Your task to perform on an android device: What's on my calendar tomorrow? Image 0: 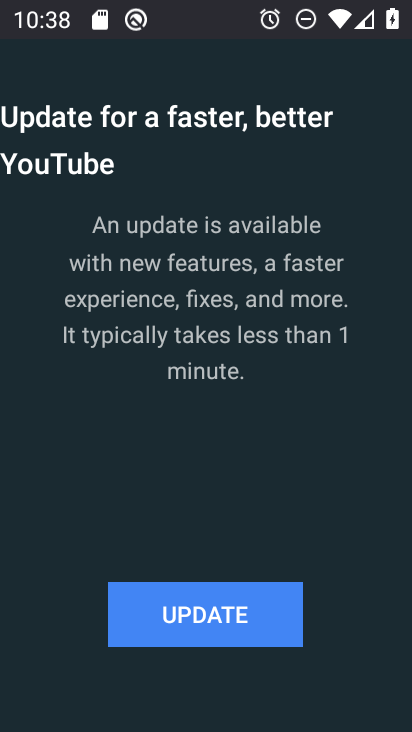
Step 0: press home button
Your task to perform on an android device: What's on my calendar tomorrow? Image 1: 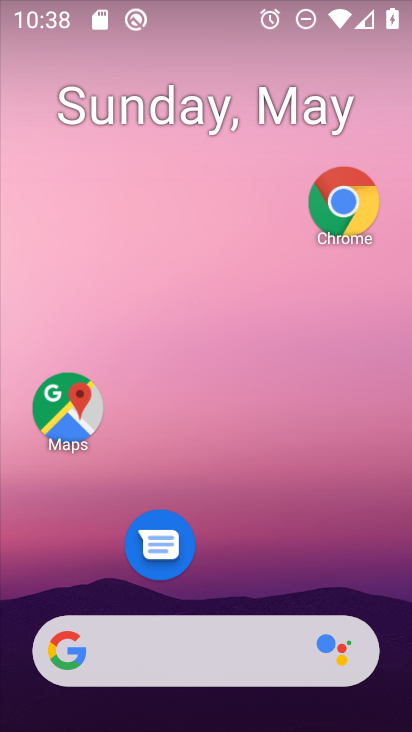
Step 1: drag from (236, 578) to (271, 65)
Your task to perform on an android device: What's on my calendar tomorrow? Image 2: 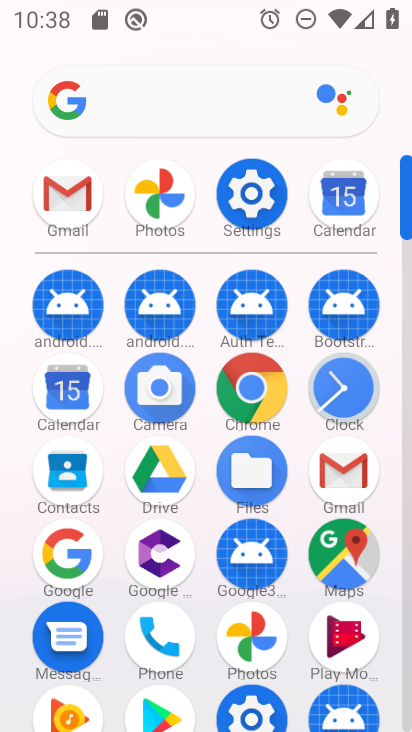
Step 2: click (70, 385)
Your task to perform on an android device: What's on my calendar tomorrow? Image 3: 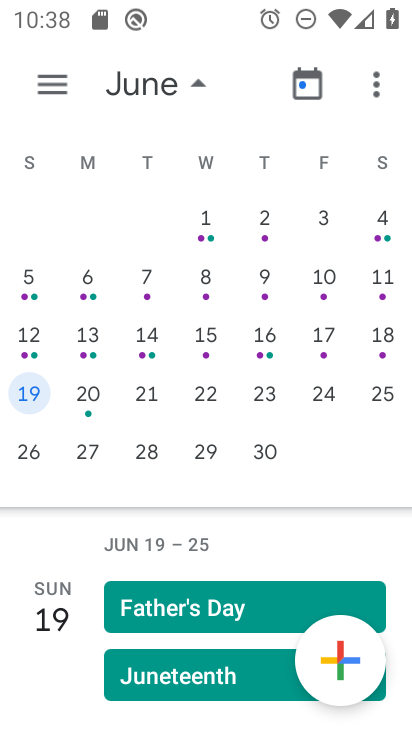
Step 3: drag from (82, 299) to (346, 250)
Your task to perform on an android device: What's on my calendar tomorrow? Image 4: 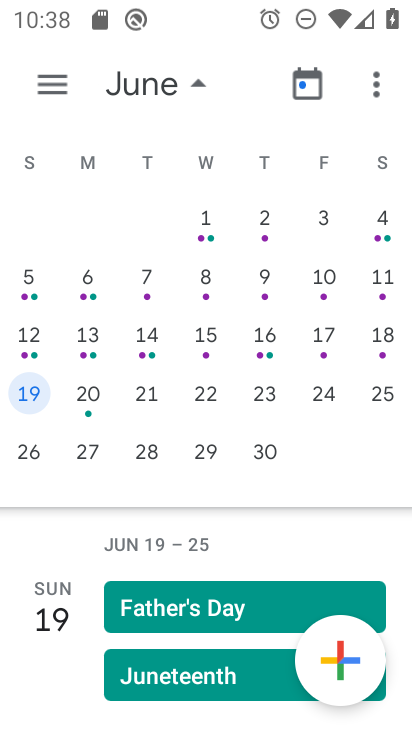
Step 4: drag from (97, 284) to (402, 260)
Your task to perform on an android device: What's on my calendar tomorrow? Image 5: 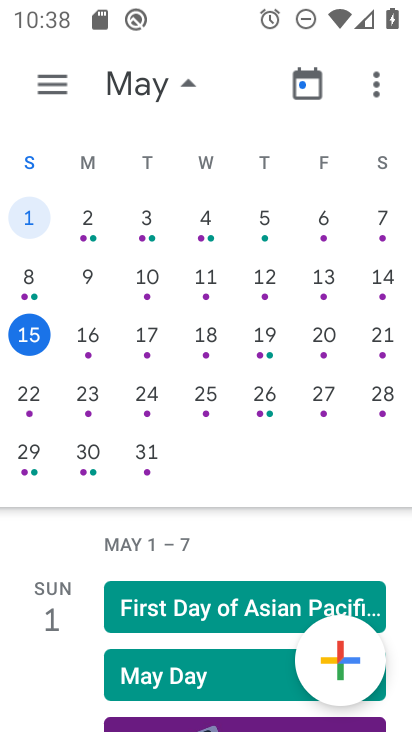
Step 5: click (74, 323)
Your task to perform on an android device: What's on my calendar tomorrow? Image 6: 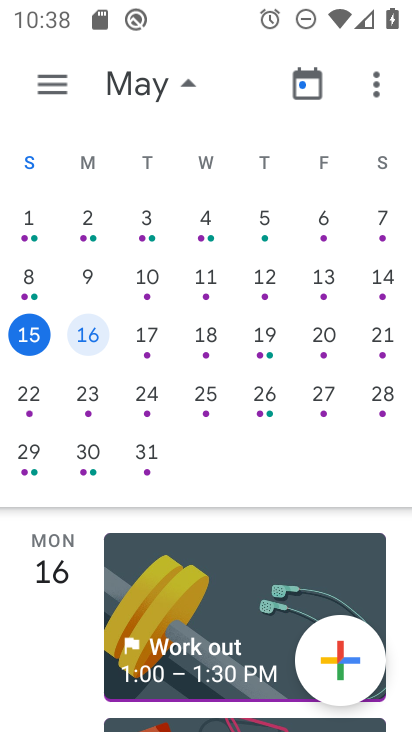
Step 6: task complete